Your task to perform on an android device: Set the phone to "Do not disturb". Image 0: 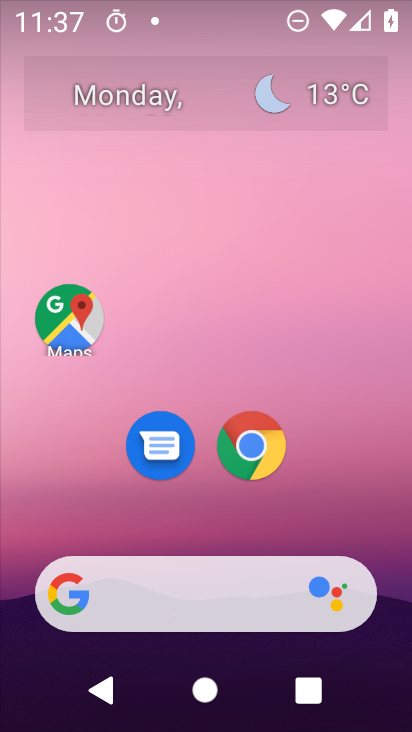
Step 0: drag from (156, 12) to (289, 517)
Your task to perform on an android device: Set the phone to "Do not disturb". Image 1: 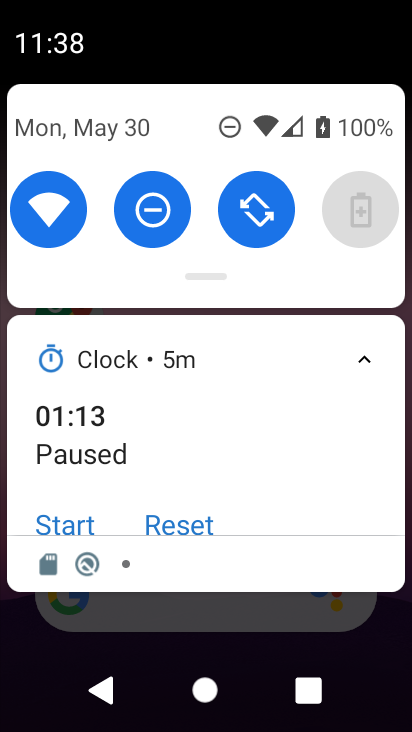
Step 1: task complete